Your task to perform on an android device: Open notification settings Image 0: 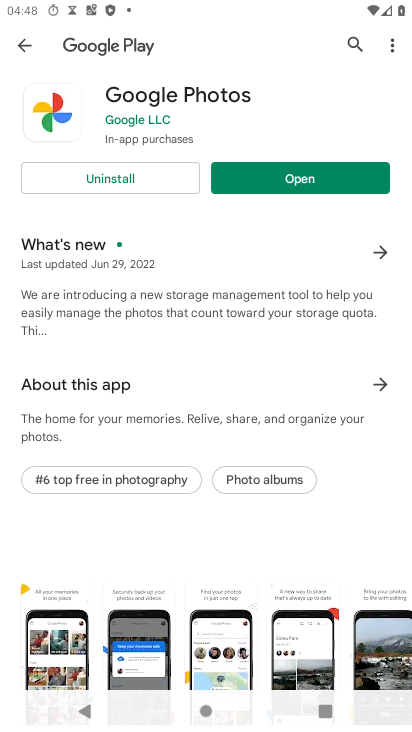
Step 0: press home button
Your task to perform on an android device: Open notification settings Image 1: 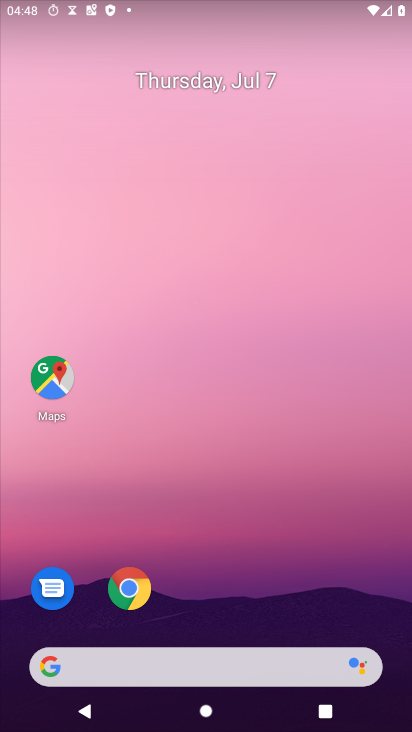
Step 1: drag from (220, 581) to (102, 49)
Your task to perform on an android device: Open notification settings Image 2: 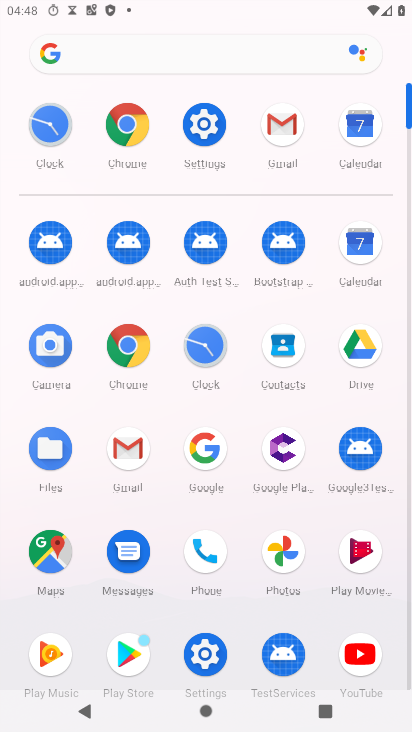
Step 2: click (202, 116)
Your task to perform on an android device: Open notification settings Image 3: 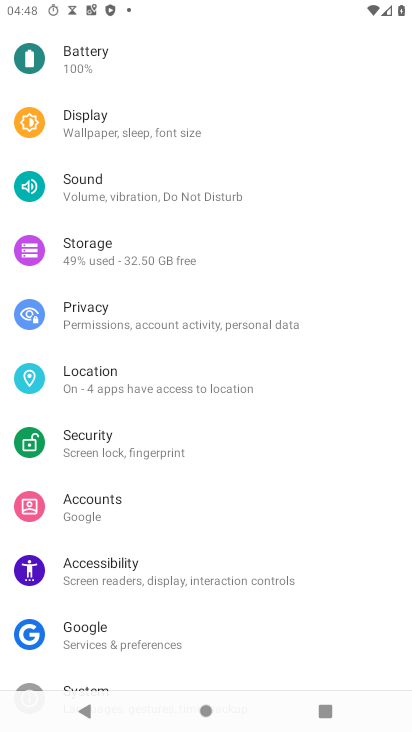
Step 3: drag from (237, 98) to (380, 633)
Your task to perform on an android device: Open notification settings Image 4: 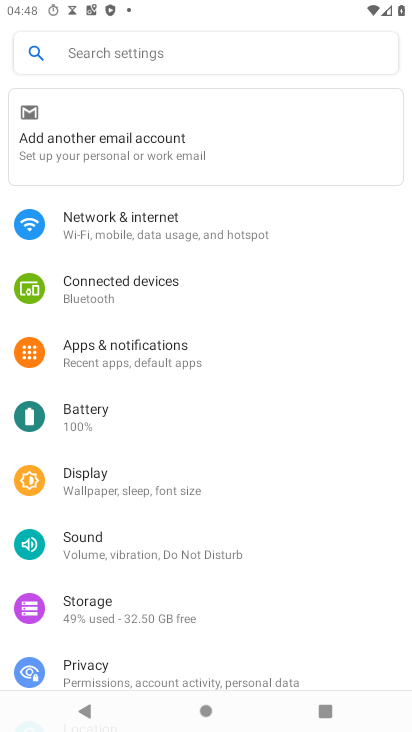
Step 4: click (128, 349)
Your task to perform on an android device: Open notification settings Image 5: 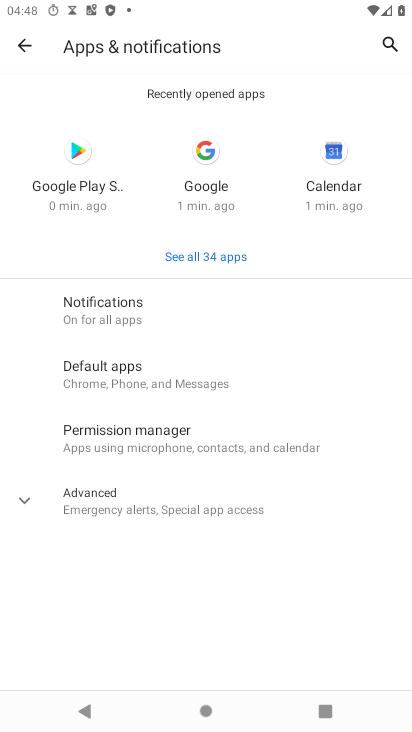
Step 5: click (90, 305)
Your task to perform on an android device: Open notification settings Image 6: 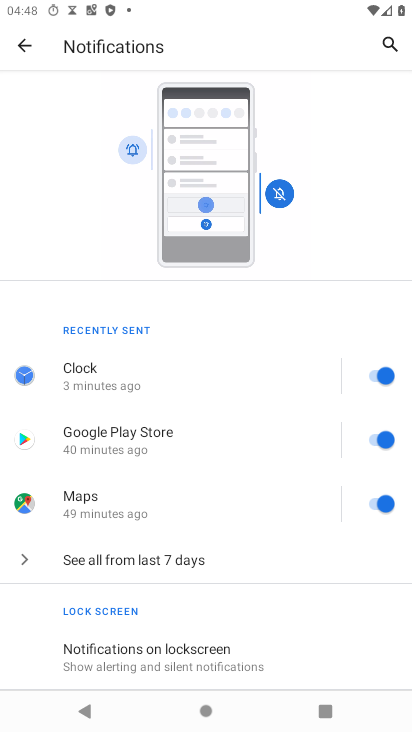
Step 6: task complete